Your task to perform on an android device: Search for seafood restaurants on Google Maps Image 0: 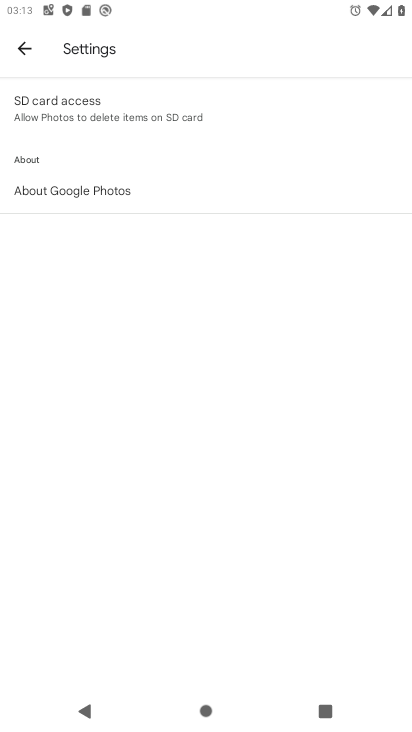
Step 0: press home button
Your task to perform on an android device: Search for seafood restaurants on Google Maps Image 1: 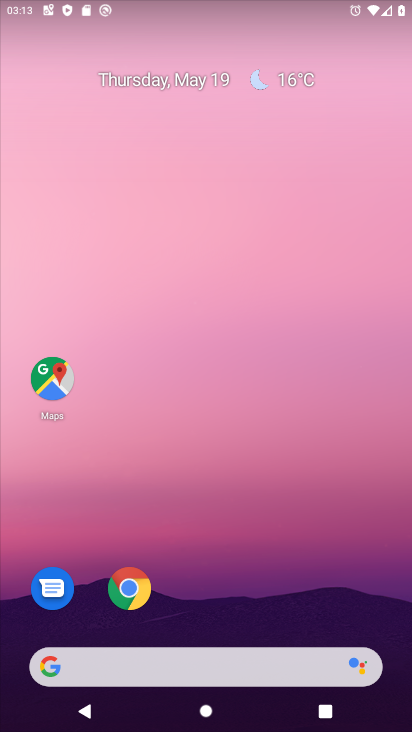
Step 1: click (57, 384)
Your task to perform on an android device: Search for seafood restaurants on Google Maps Image 2: 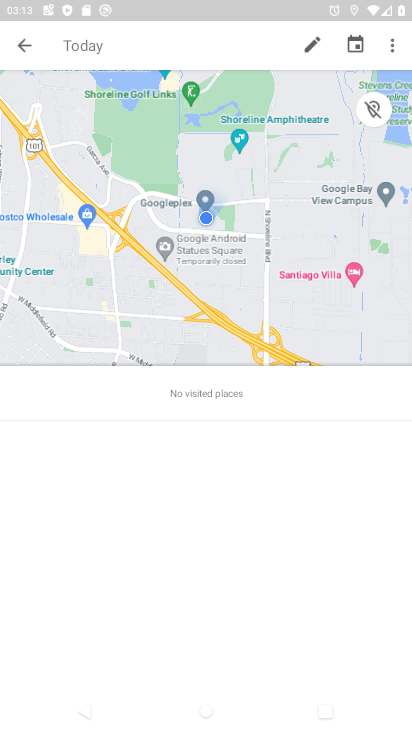
Step 2: press back button
Your task to perform on an android device: Search for seafood restaurants on Google Maps Image 3: 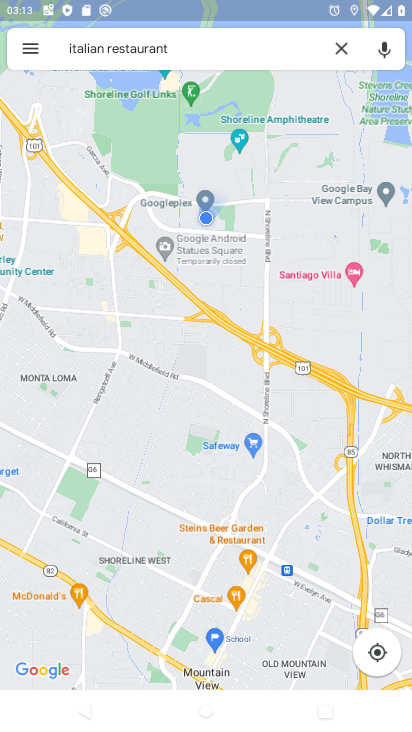
Step 3: click (231, 49)
Your task to perform on an android device: Search for seafood restaurants on Google Maps Image 4: 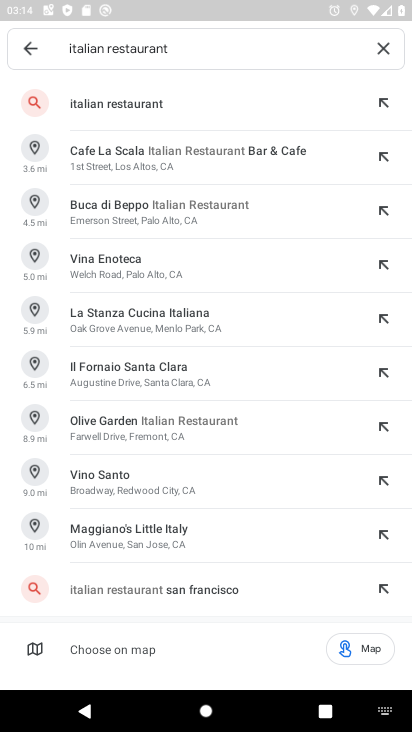
Step 4: click (380, 43)
Your task to perform on an android device: Search for seafood restaurants on Google Maps Image 5: 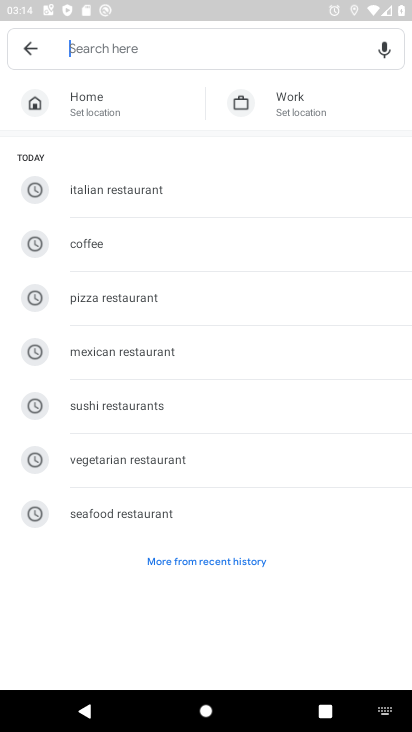
Step 5: click (138, 514)
Your task to perform on an android device: Search for seafood restaurants on Google Maps Image 6: 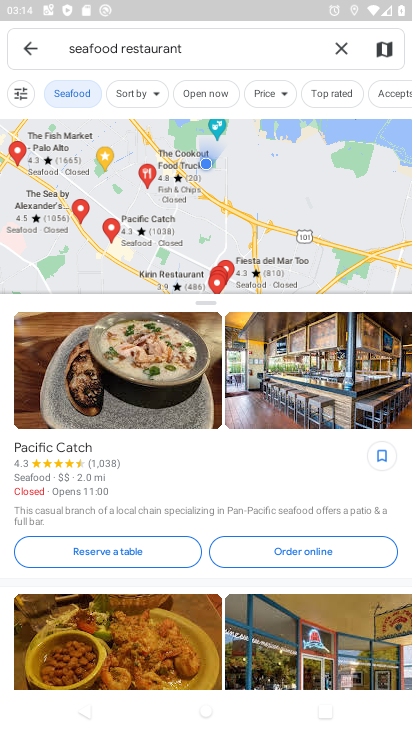
Step 6: task complete